Your task to perform on an android device: What is the news today? Image 0: 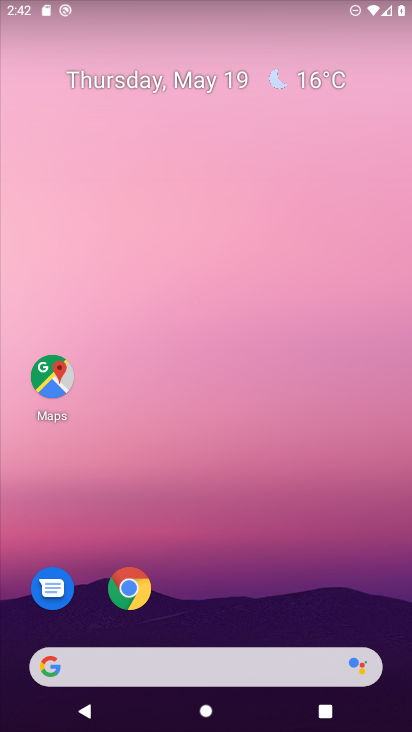
Step 0: click (81, 667)
Your task to perform on an android device: What is the news today? Image 1: 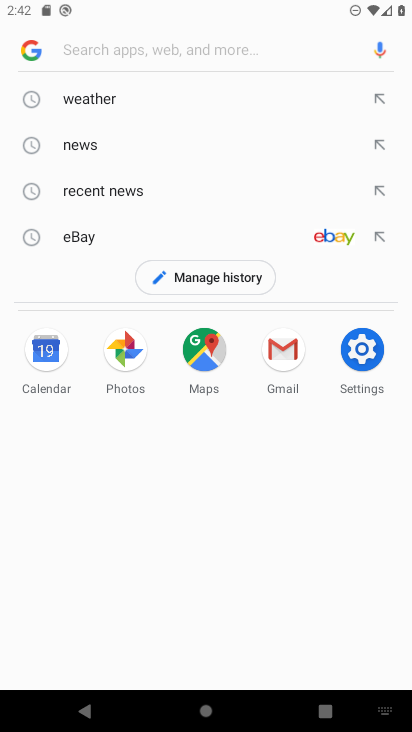
Step 1: click (135, 40)
Your task to perform on an android device: What is the news today? Image 2: 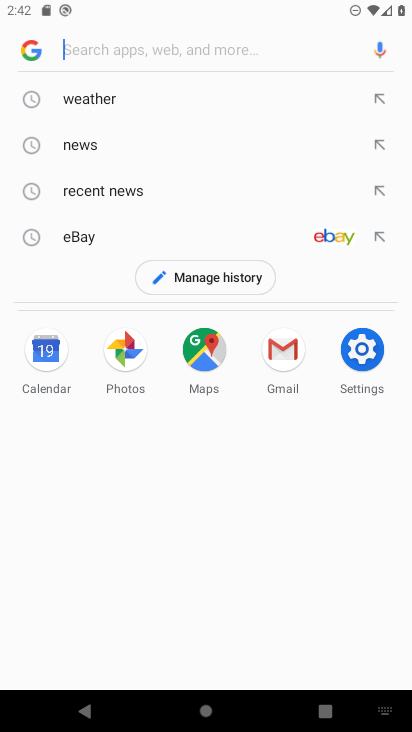
Step 2: type "news today"
Your task to perform on an android device: What is the news today? Image 3: 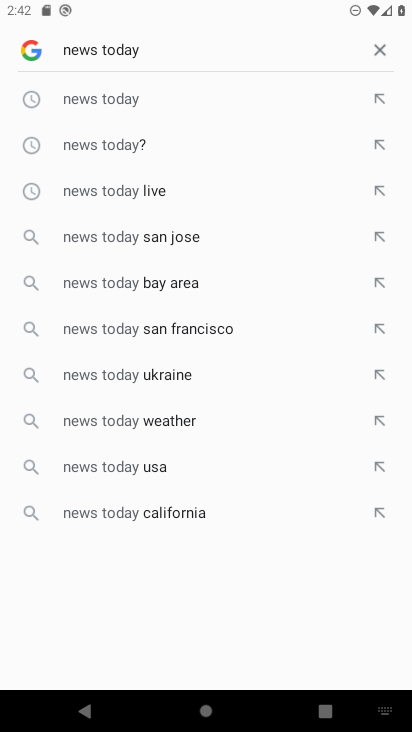
Step 3: click (93, 102)
Your task to perform on an android device: What is the news today? Image 4: 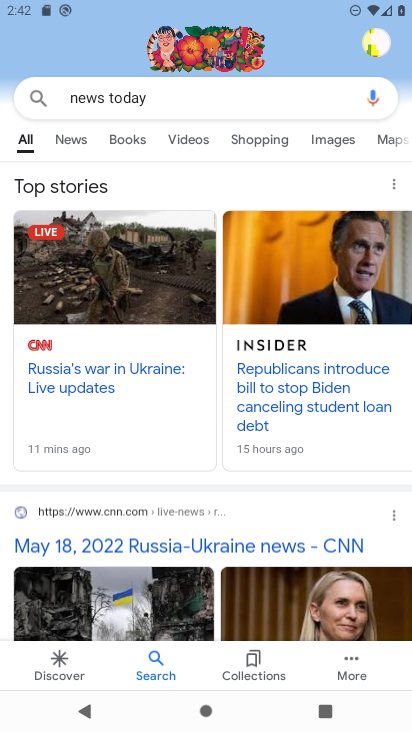
Step 4: click (79, 142)
Your task to perform on an android device: What is the news today? Image 5: 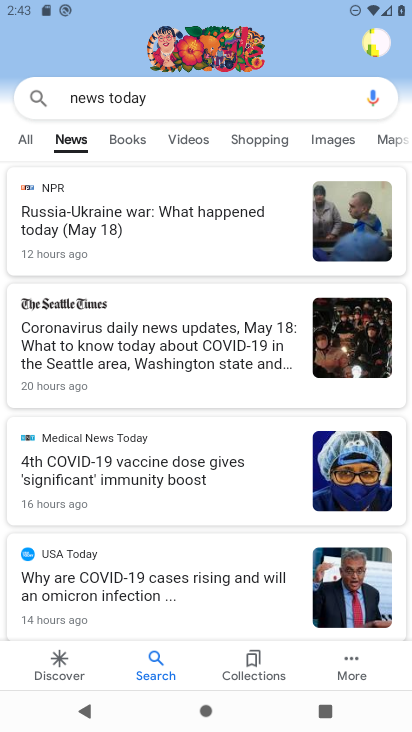
Step 5: drag from (159, 440) to (169, 272)
Your task to perform on an android device: What is the news today? Image 6: 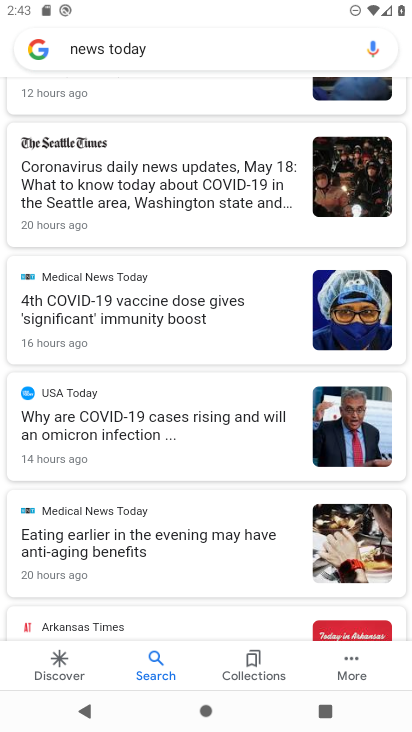
Step 6: drag from (169, 272) to (139, 467)
Your task to perform on an android device: What is the news today? Image 7: 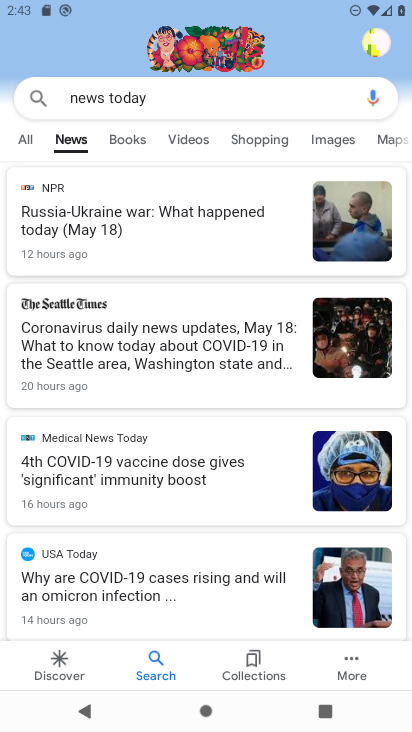
Step 7: click (94, 254)
Your task to perform on an android device: What is the news today? Image 8: 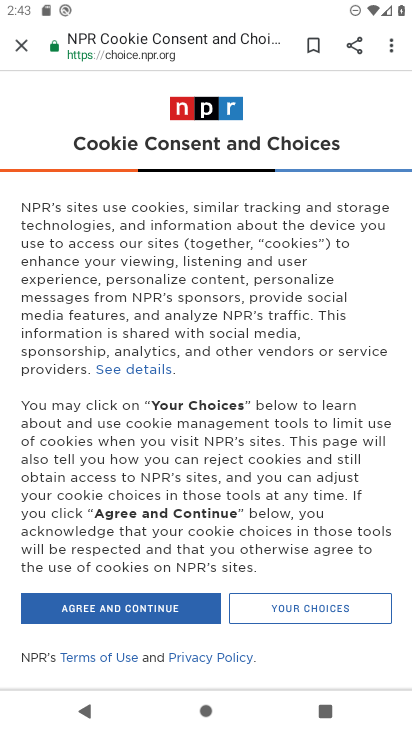
Step 8: task complete